Your task to perform on an android device: Open sound settings Image 0: 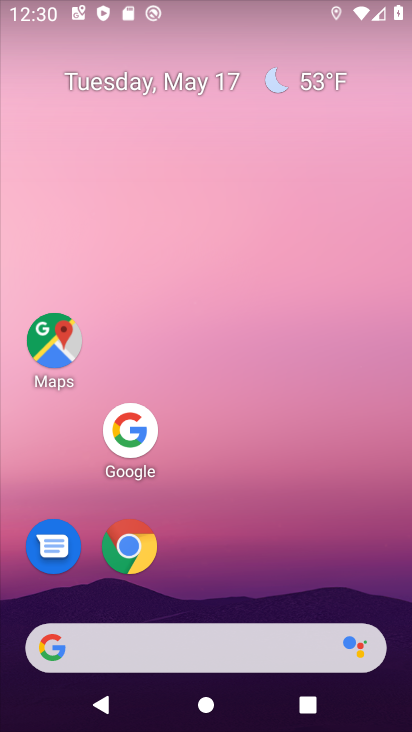
Step 0: drag from (234, 552) to (216, 51)
Your task to perform on an android device: Open sound settings Image 1: 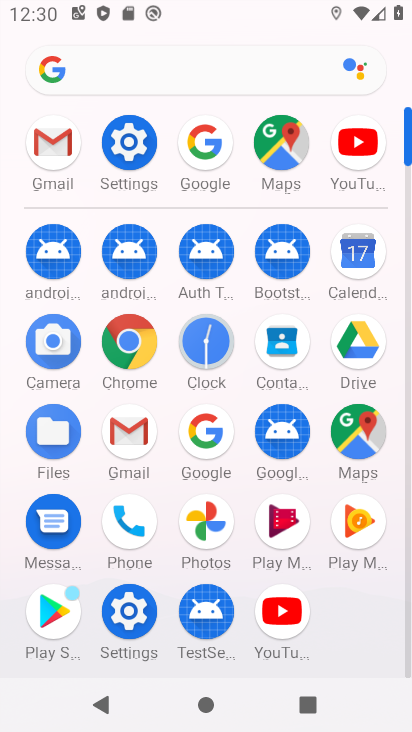
Step 1: click (130, 129)
Your task to perform on an android device: Open sound settings Image 2: 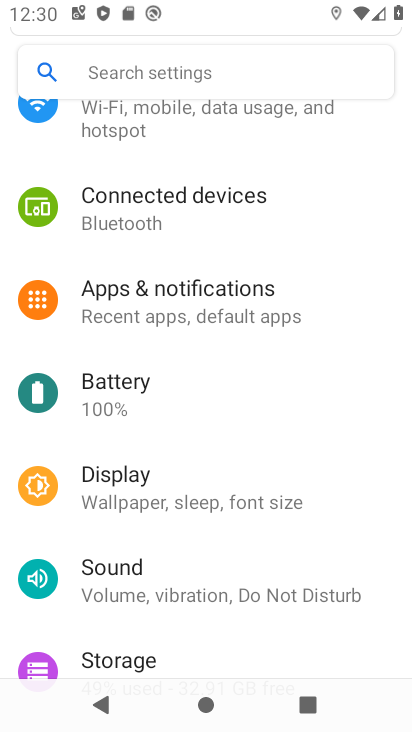
Step 2: click (149, 568)
Your task to perform on an android device: Open sound settings Image 3: 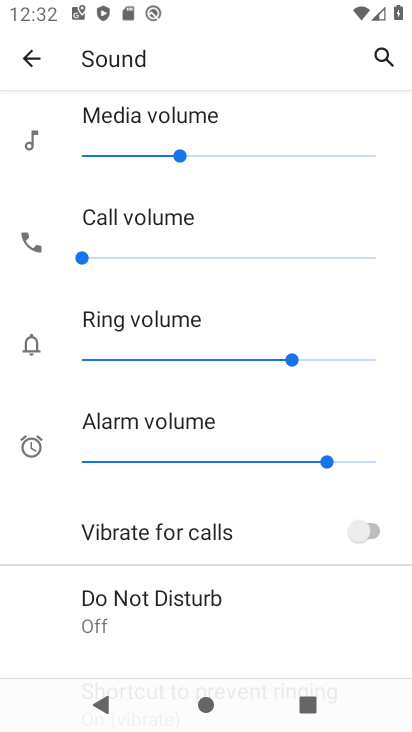
Step 3: task complete